Your task to perform on an android device: check out phone information Image 0: 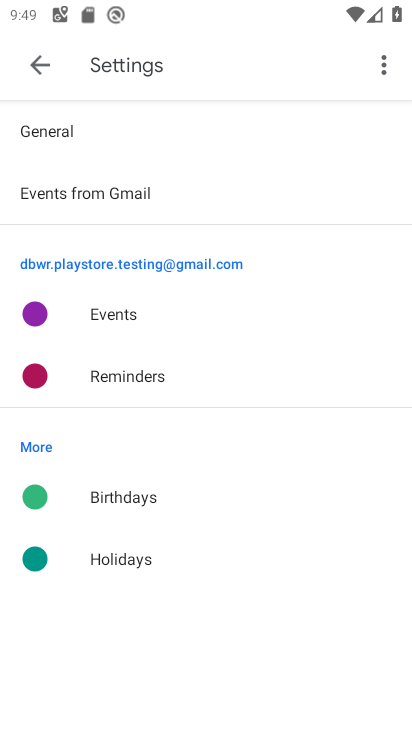
Step 0: press home button
Your task to perform on an android device: check out phone information Image 1: 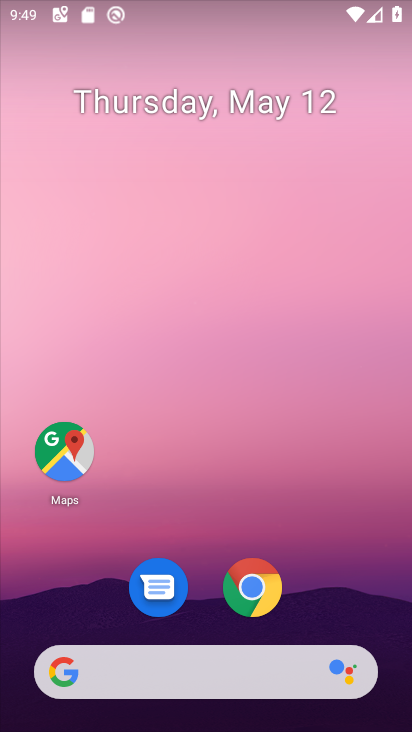
Step 1: drag from (383, 611) to (137, 74)
Your task to perform on an android device: check out phone information Image 2: 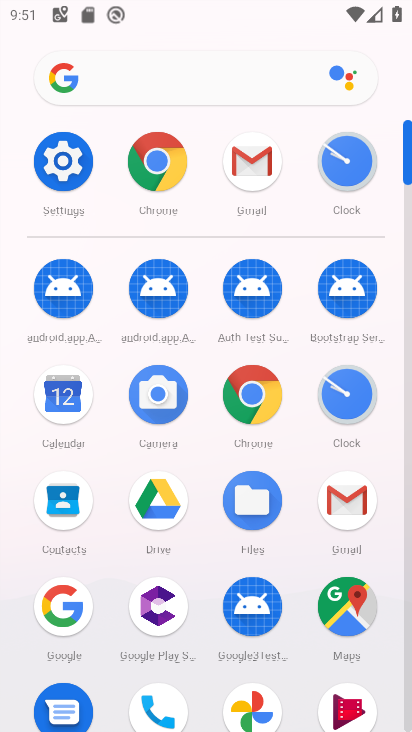
Step 2: click (55, 170)
Your task to perform on an android device: check out phone information Image 3: 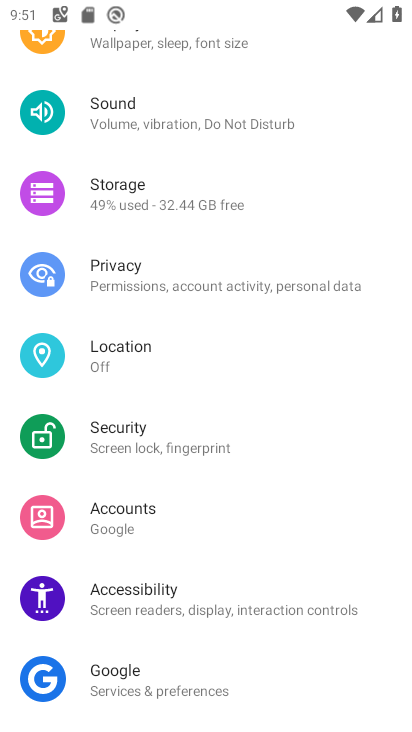
Step 3: drag from (186, 436) to (131, 11)
Your task to perform on an android device: check out phone information Image 4: 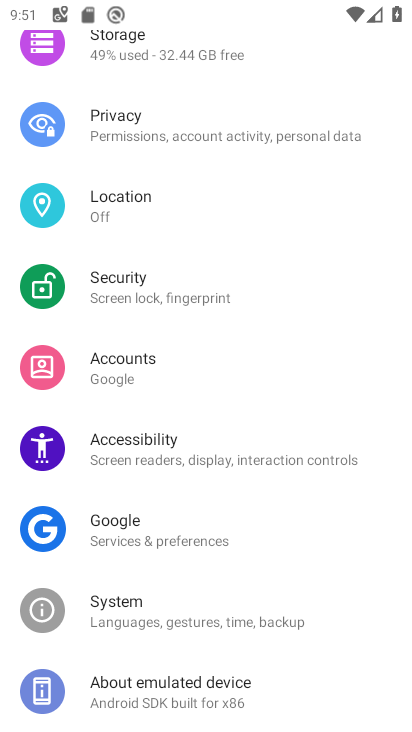
Step 4: click (223, 702)
Your task to perform on an android device: check out phone information Image 5: 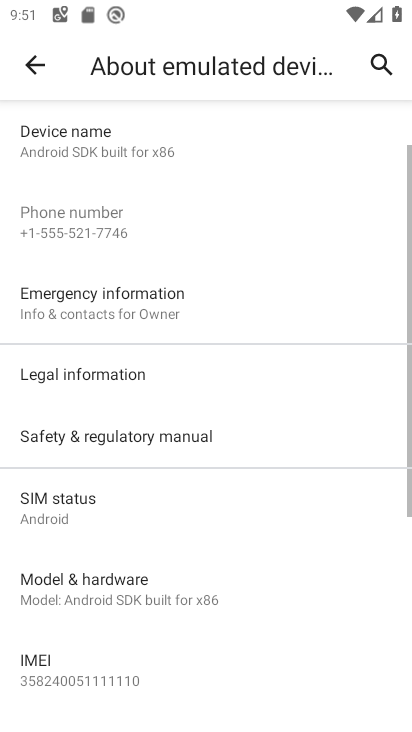
Step 5: task complete